Your task to perform on an android device: toggle wifi Image 0: 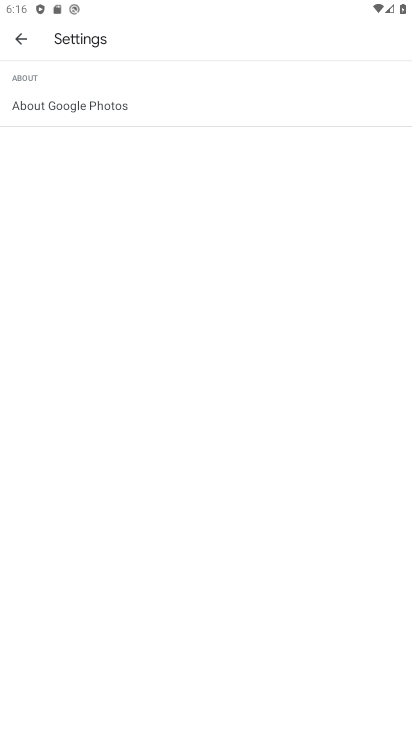
Step 0: press home button
Your task to perform on an android device: toggle wifi Image 1: 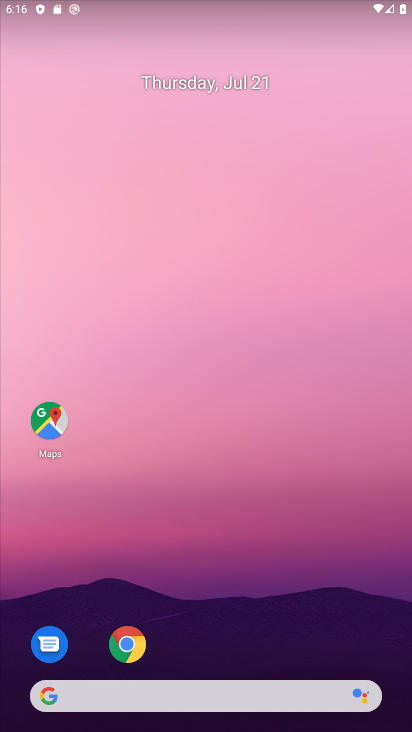
Step 1: drag from (251, 651) to (153, 79)
Your task to perform on an android device: toggle wifi Image 2: 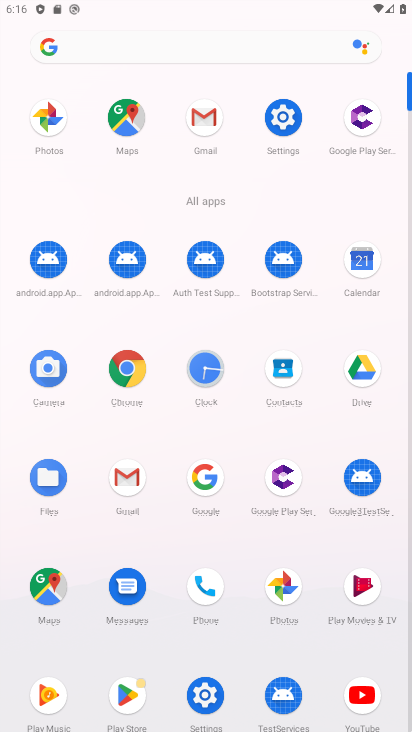
Step 2: click (267, 131)
Your task to perform on an android device: toggle wifi Image 3: 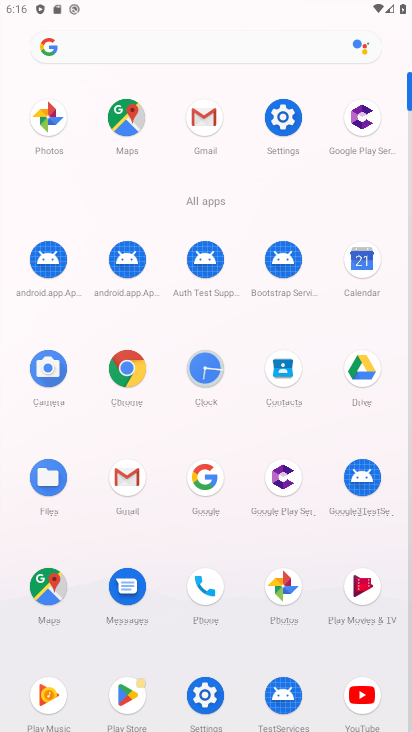
Step 3: click (267, 131)
Your task to perform on an android device: toggle wifi Image 4: 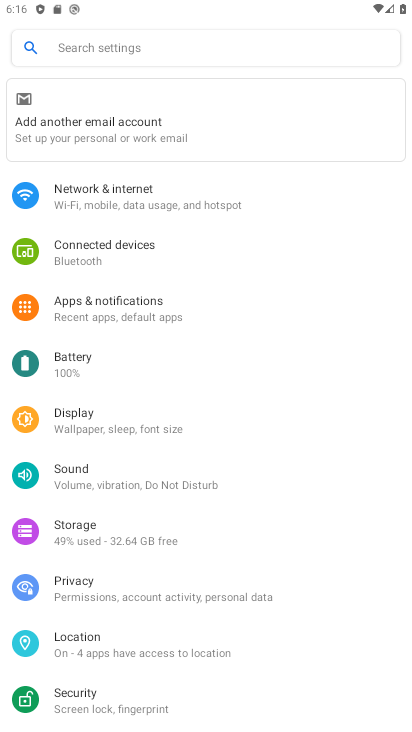
Step 4: click (188, 195)
Your task to perform on an android device: toggle wifi Image 5: 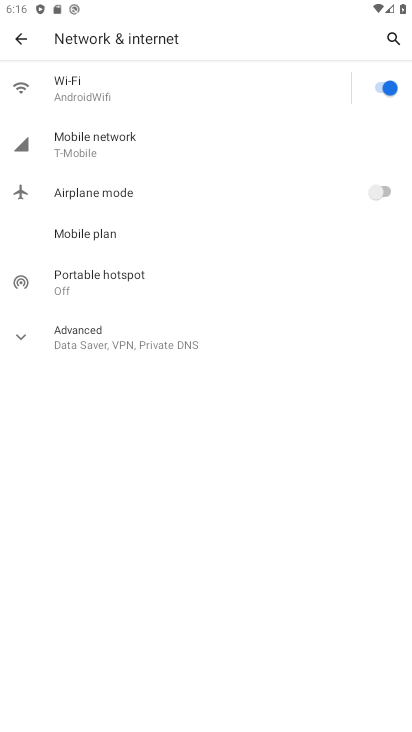
Step 5: click (389, 83)
Your task to perform on an android device: toggle wifi Image 6: 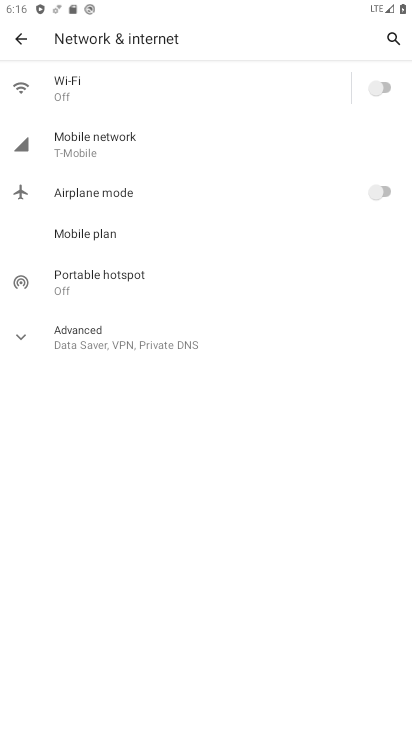
Step 6: task complete